Your task to perform on an android device: turn off translation in the chrome app Image 0: 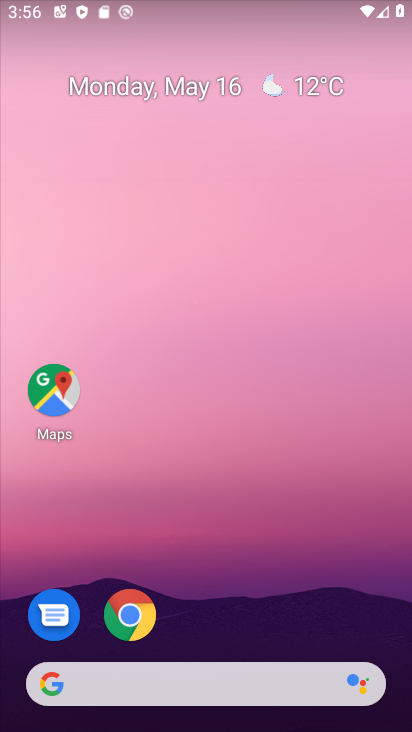
Step 0: click (133, 616)
Your task to perform on an android device: turn off translation in the chrome app Image 1: 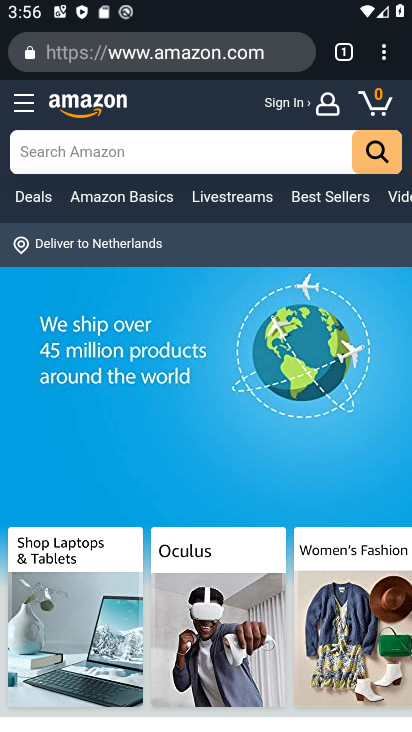
Step 1: click (385, 60)
Your task to perform on an android device: turn off translation in the chrome app Image 2: 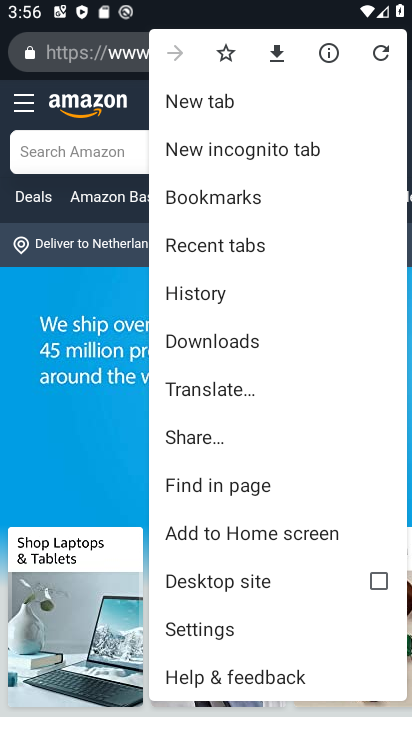
Step 2: drag from (221, 621) to (231, 315)
Your task to perform on an android device: turn off translation in the chrome app Image 3: 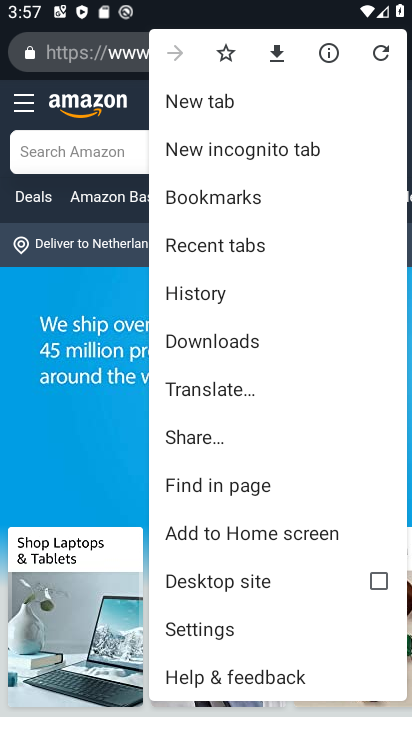
Step 3: click (210, 624)
Your task to perform on an android device: turn off translation in the chrome app Image 4: 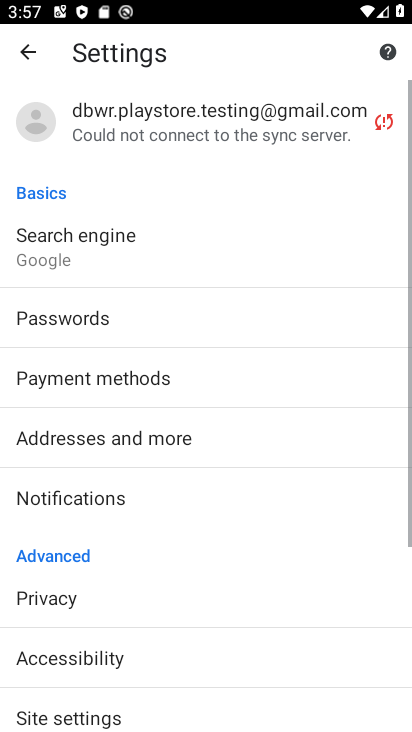
Step 4: drag from (134, 623) to (120, 349)
Your task to perform on an android device: turn off translation in the chrome app Image 5: 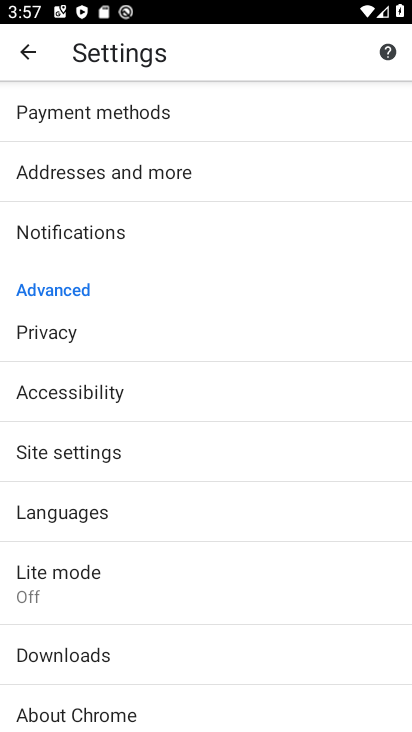
Step 5: click (66, 505)
Your task to perform on an android device: turn off translation in the chrome app Image 6: 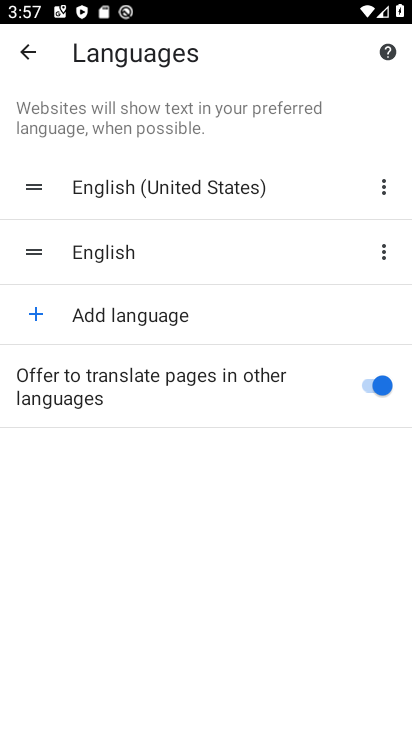
Step 6: click (372, 382)
Your task to perform on an android device: turn off translation in the chrome app Image 7: 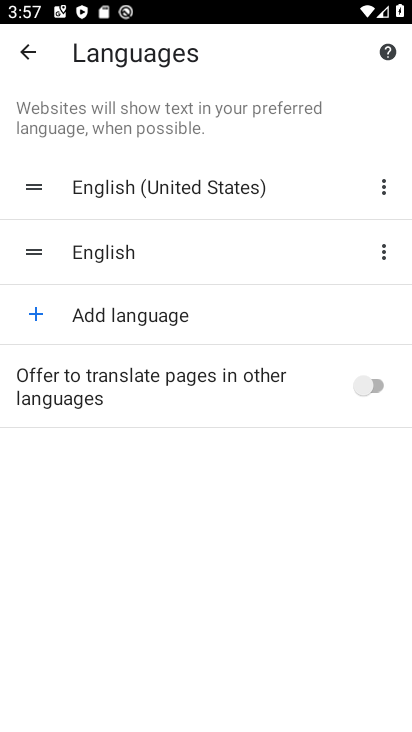
Step 7: task complete